Your task to perform on an android device: Search for macbook pro 15 inch on walmart, select the first entry, and add it to the cart. Image 0: 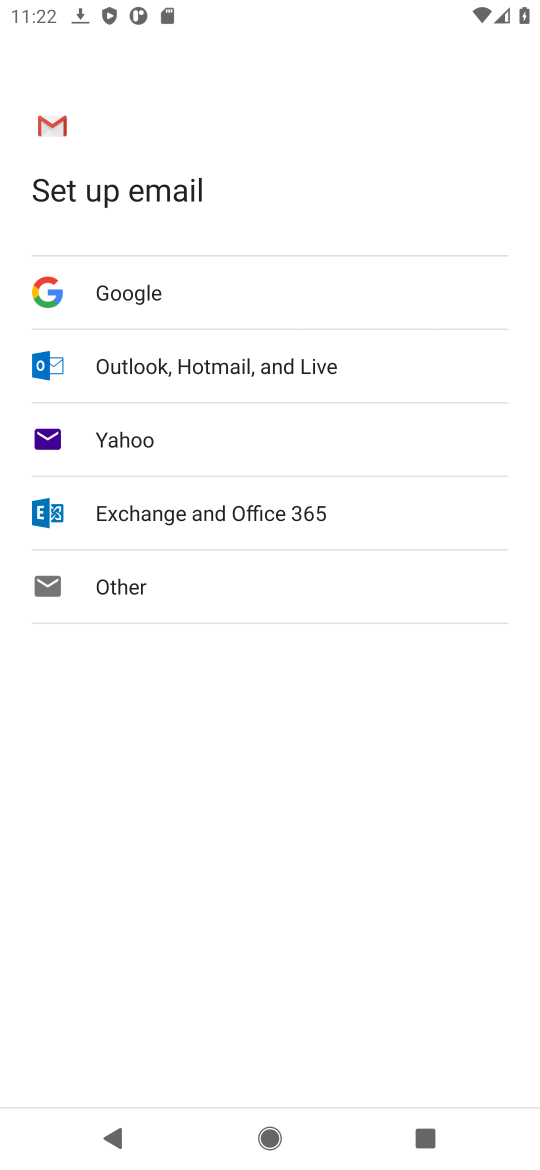
Step 0: press home button
Your task to perform on an android device: Search for macbook pro 15 inch on walmart, select the first entry, and add it to the cart. Image 1: 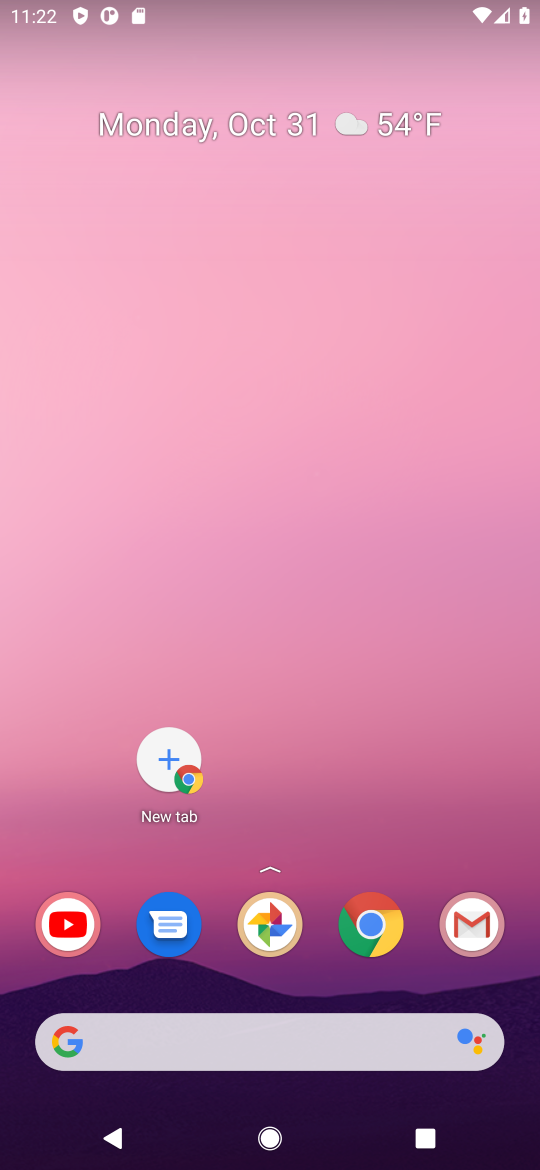
Step 1: click (359, 922)
Your task to perform on an android device: Search for macbook pro 15 inch on walmart, select the first entry, and add it to the cart. Image 2: 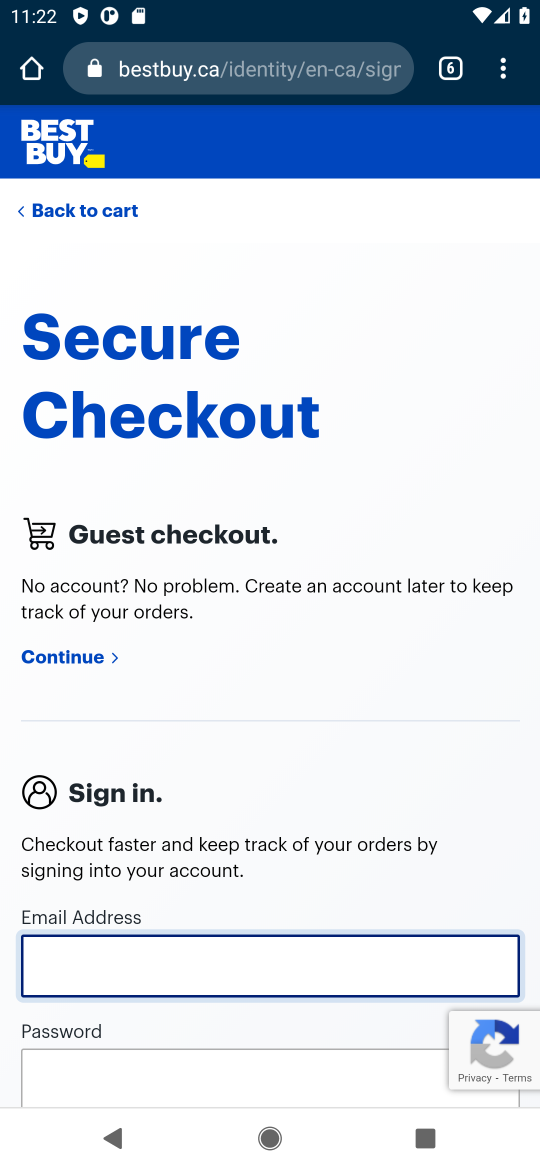
Step 2: click (219, 64)
Your task to perform on an android device: Search for macbook pro 15 inch on walmart, select the first entry, and add it to the cart. Image 3: 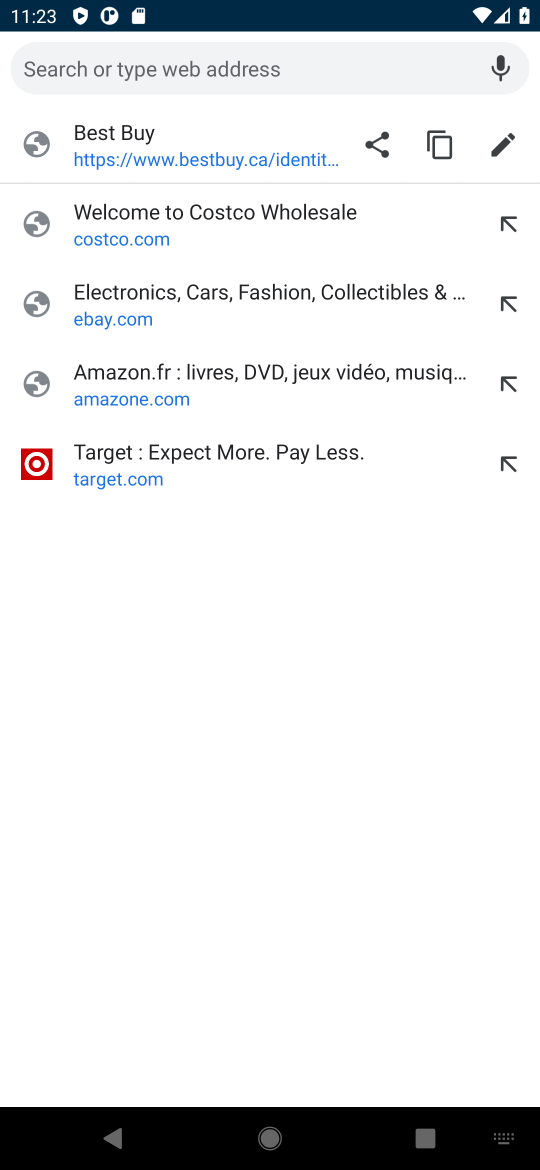
Step 3: type "walmart"
Your task to perform on an android device: Search for macbook pro 15 inch on walmart, select the first entry, and add it to the cart. Image 4: 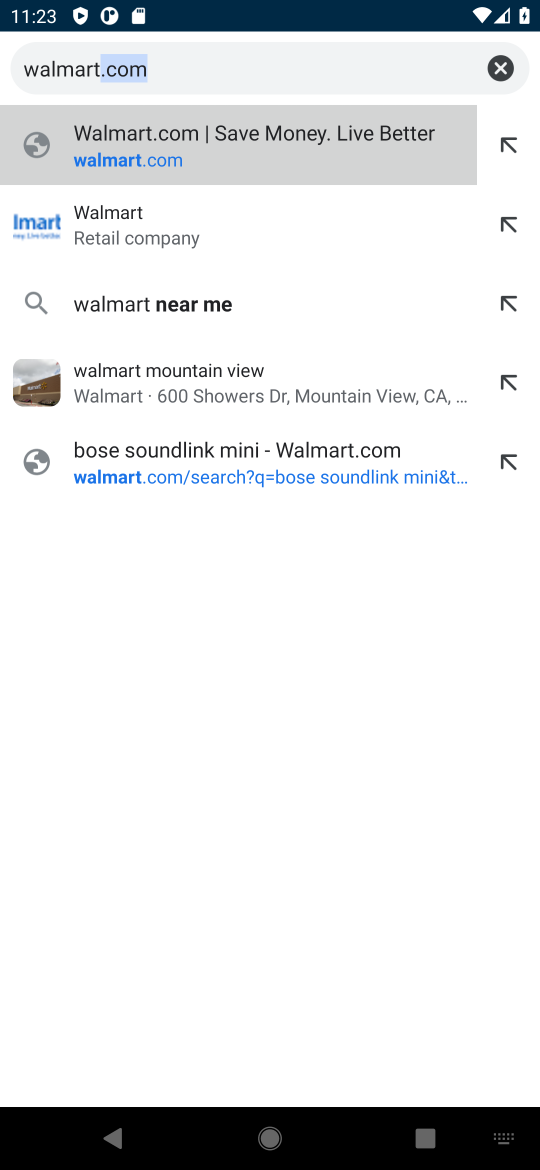
Step 4: type ""
Your task to perform on an android device: Search for macbook pro 15 inch on walmart, select the first entry, and add it to the cart. Image 5: 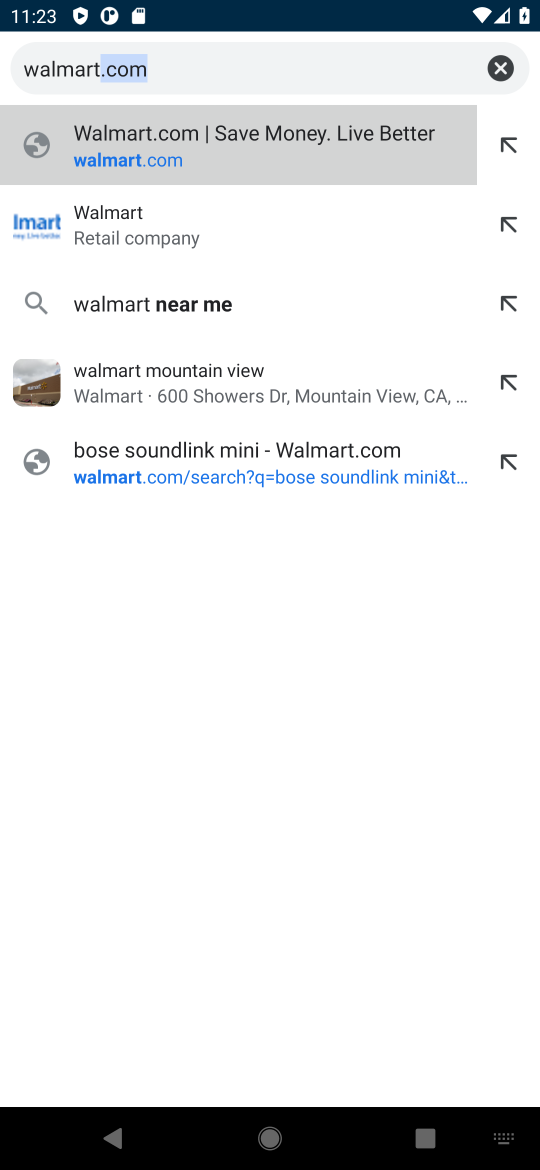
Step 5: click (76, 223)
Your task to perform on an android device: Search for macbook pro 15 inch on walmart, select the first entry, and add it to the cart. Image 6: 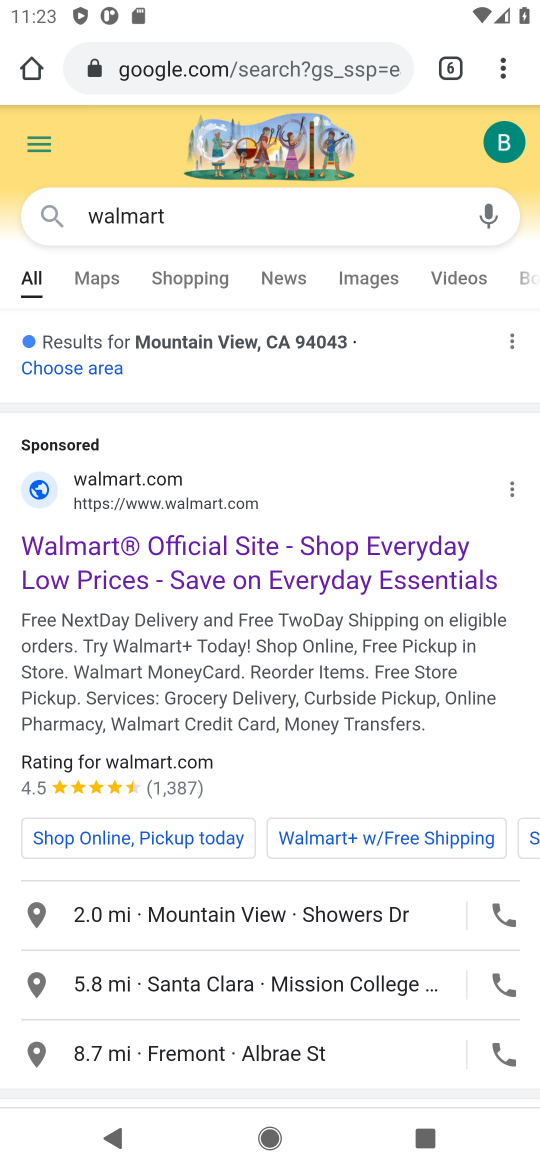
Step 6: click (207, 537)
Your task to perform on an android device: Search for macbook pro 15 inch on walmart, select the first entry, and add it to the cart. Image 7: 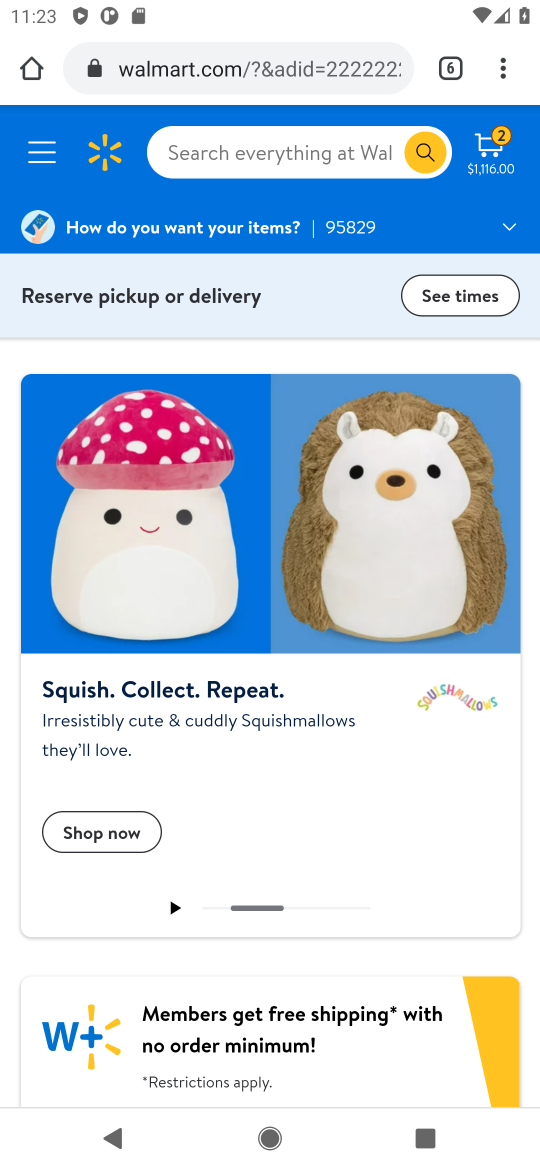
Step 7: click (272, 151)
Your task to perform on an android device: Search for macbook pro 15 inch on walmart, select the first entry, and add it to the cart. Image 8: 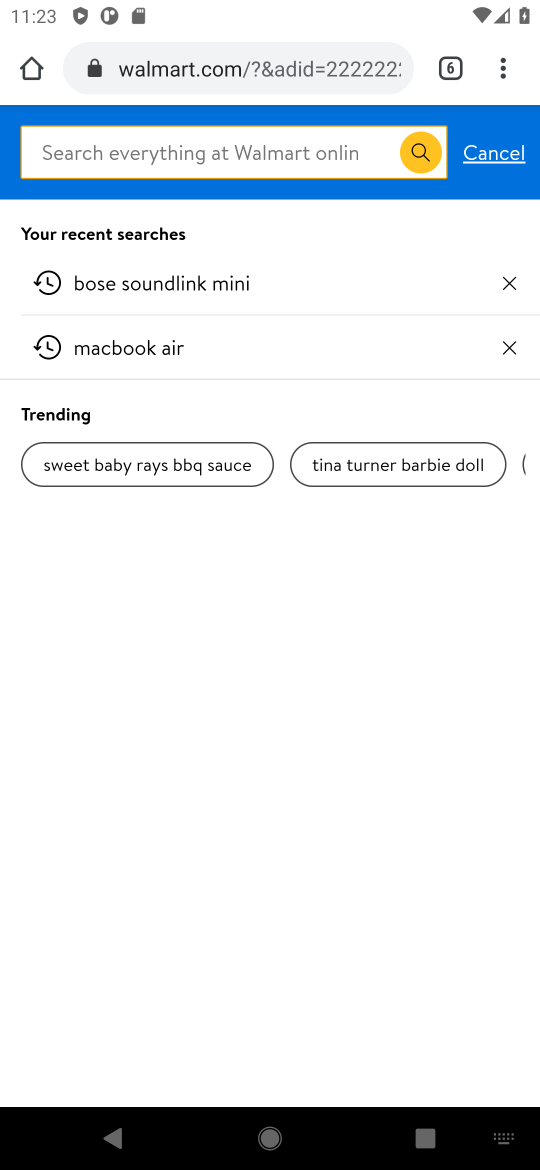
Step 8: type "macbook pro 15"
Your task to perform on an android device: Search for macbook pro 15 inch on walmart, select the first entry, and add it to the cart. Image 9: 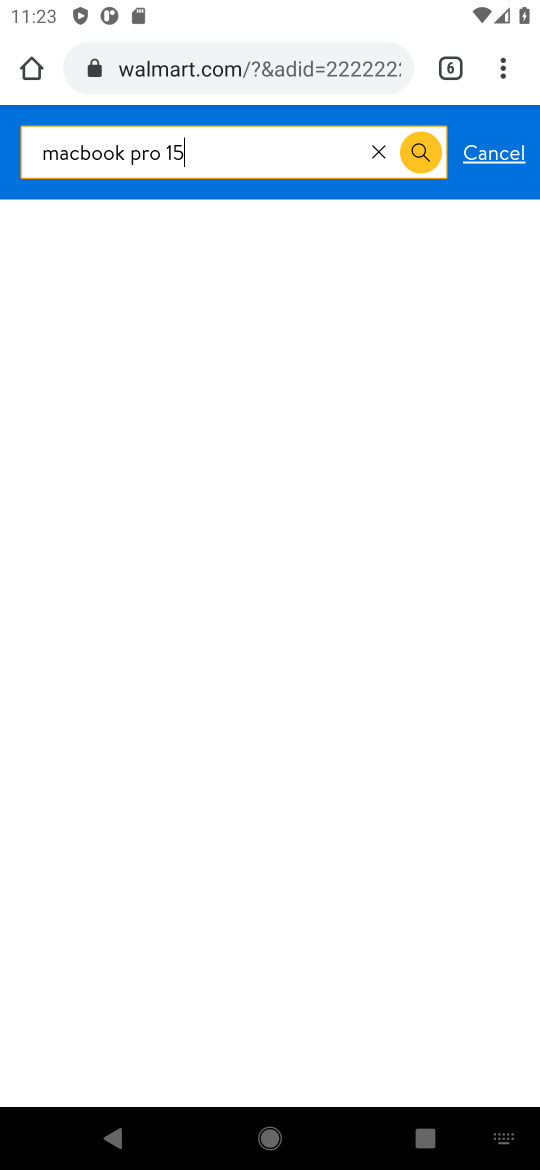
Step 9: type ""
Your task to perform on an android device: Search for macbook pro 15 inch on walmart, select the first entry, and add it to the cart. Image 10: 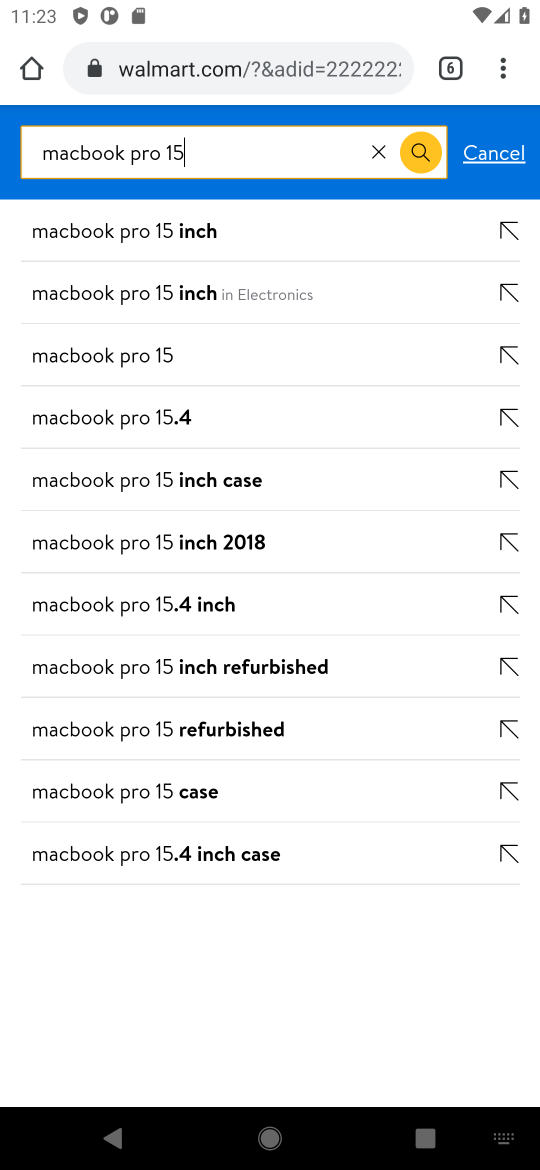
Step 10: click (132, 225)
Your task to perform on an android device: Search for macbook pro 15 inch on walmart, select the first entry, and add it to the cart. Image 11: 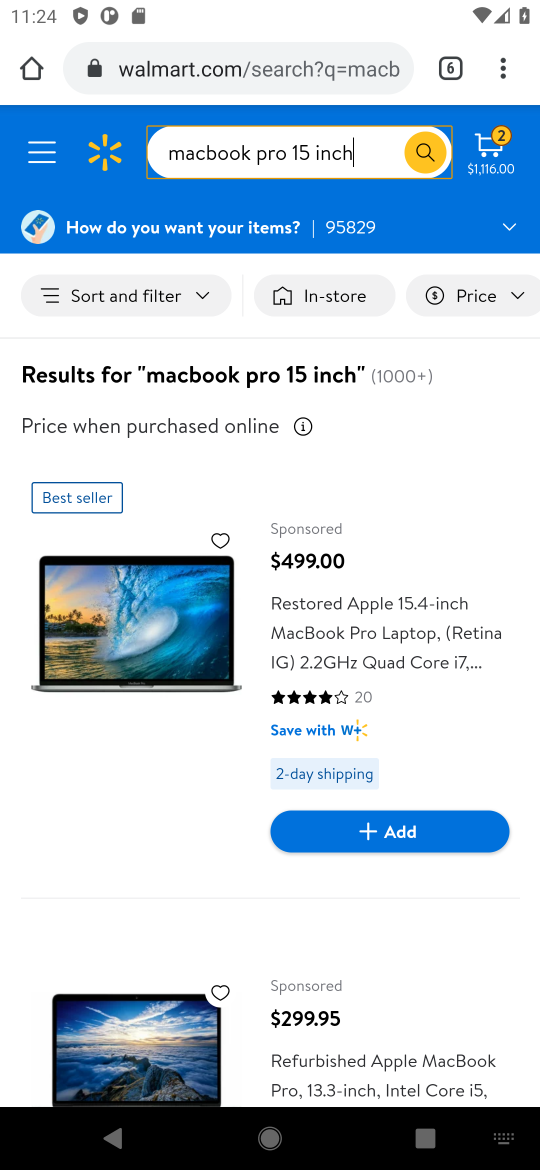
Step 11: click (160, 597)
Your task to perform on an android device: Search for macbook pro 15 inch on walmart, select the first entry, and add it to the cart. Image 12: 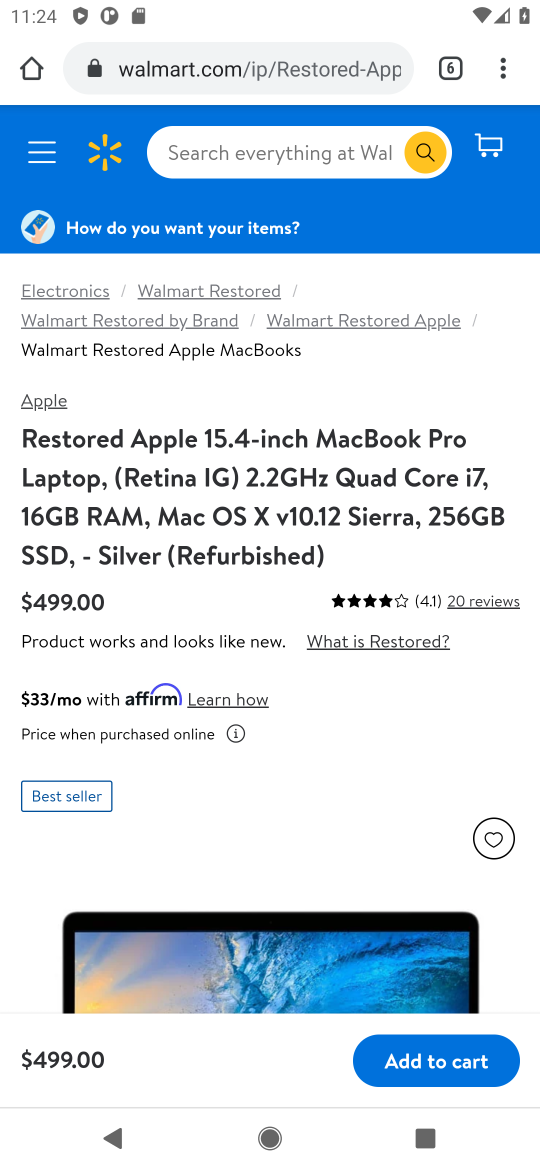
Step 12: drag from (232, 827) to (232, 563)
Your task to perform on an android device: Search for macbook pro 15 inch on walmart, select the first entry, and add it to the cart. Image 13: 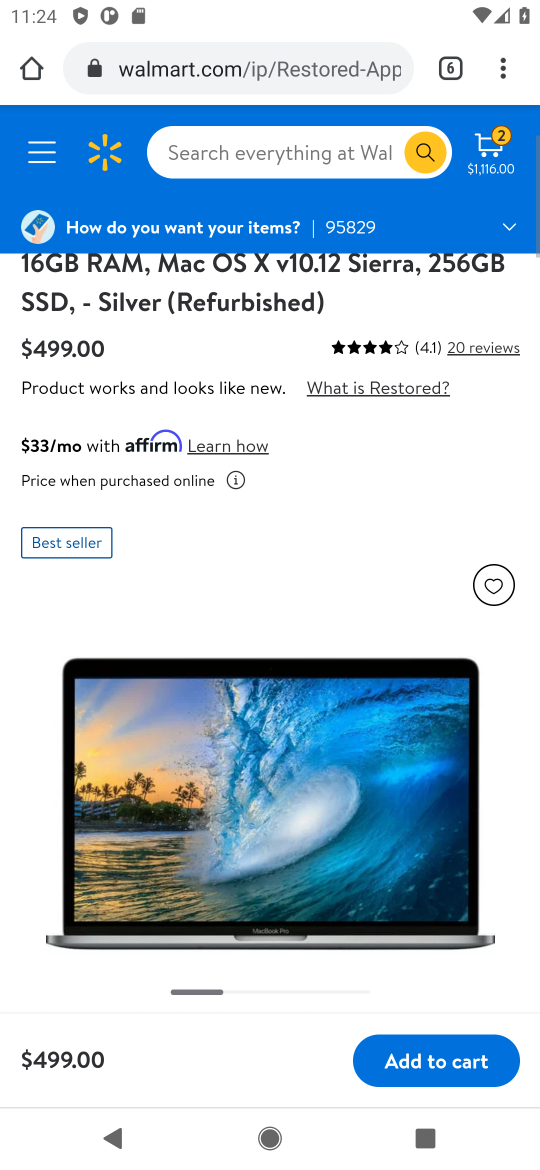
Step 13: drag from (241, 760) to (225, 543)
Your task to perform on an android device: Search for macbook pro 15 inch on walmart, select the first entry, and add it to the cart. Image 14: 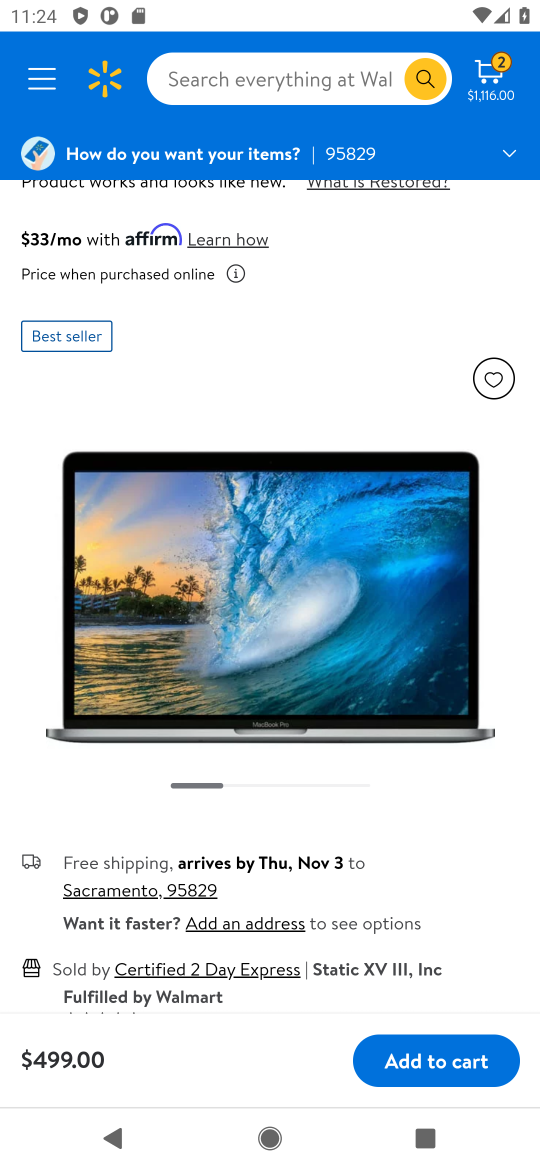
Step 14: drag from (264, 819) to (282, 651)
Your task to perform on an android device: Search for macbook pro 15 inch on walmart, select the first entry, and add it to the cart. Image 15: 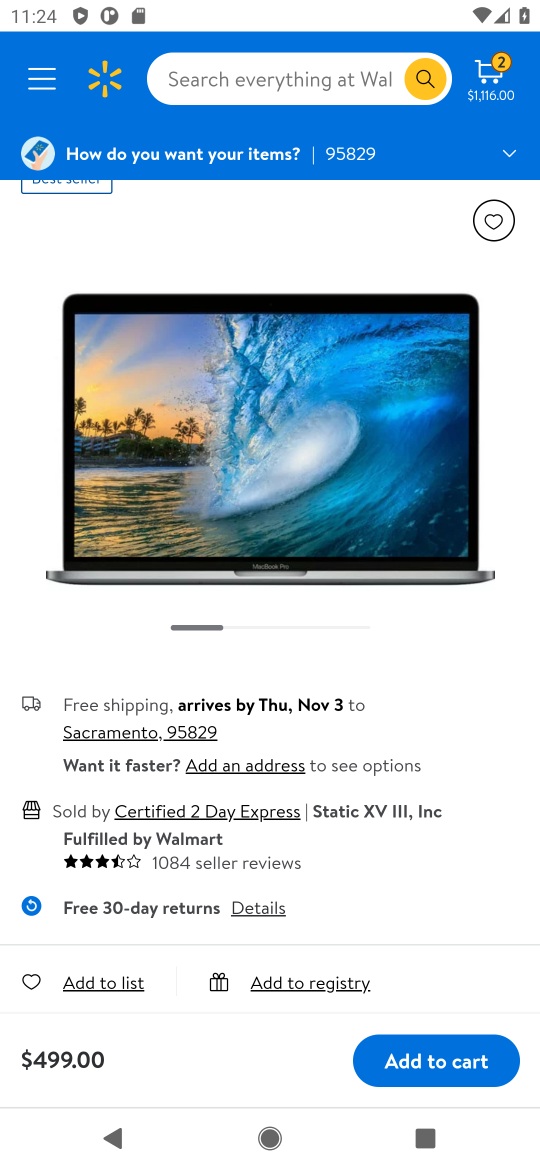
Step 15: drag from (259, 819) to (265, 640)
Your task to perform on an android device: Search for macbook pro 15 inch on walmart, select the first entry, and add it to the cart. Image 16: 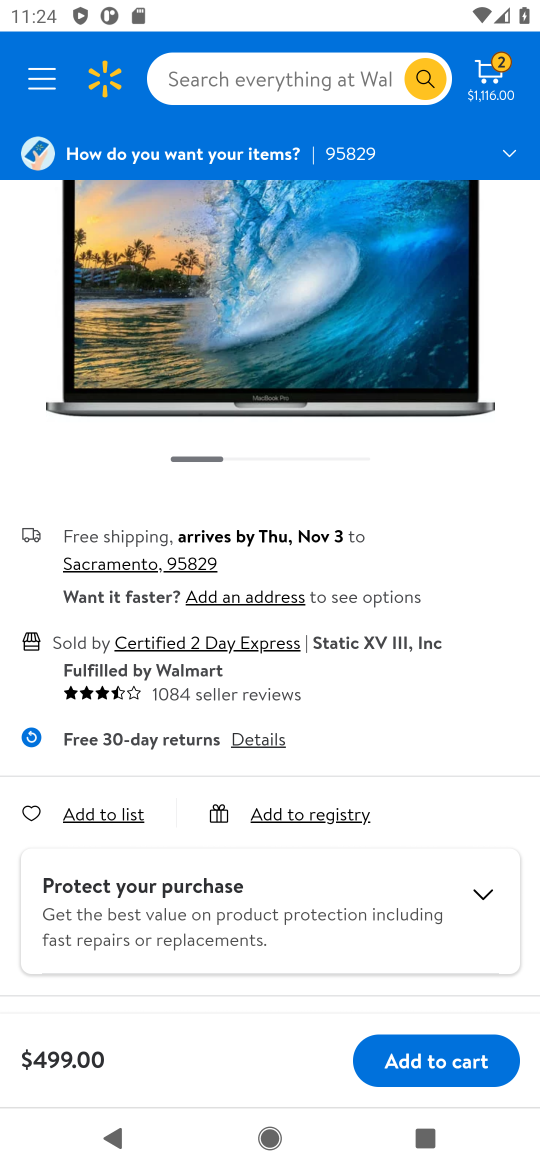
Step 16: click (410, 1077)
Your task to perform on an android device: Search for macbook pro 15 inch on walmart, select the first entry, and add it to the cart. Image 17: 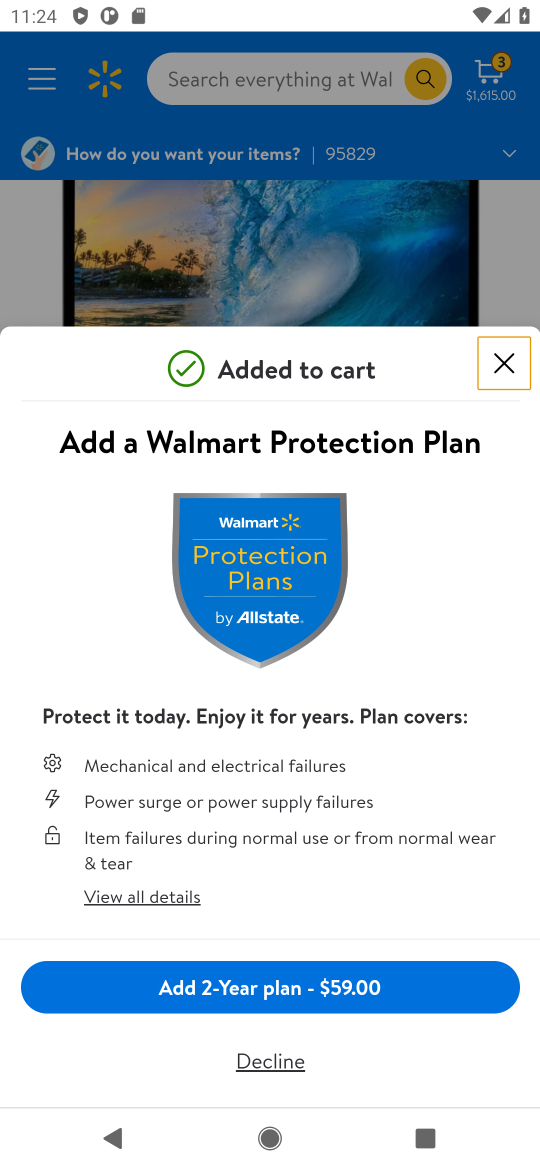
Step 17: click (282, 1058)
Your task to perform on an android device: Search for macbook pro 15 inch on walmart, select the first entry, and add it to the cart. Image 18: 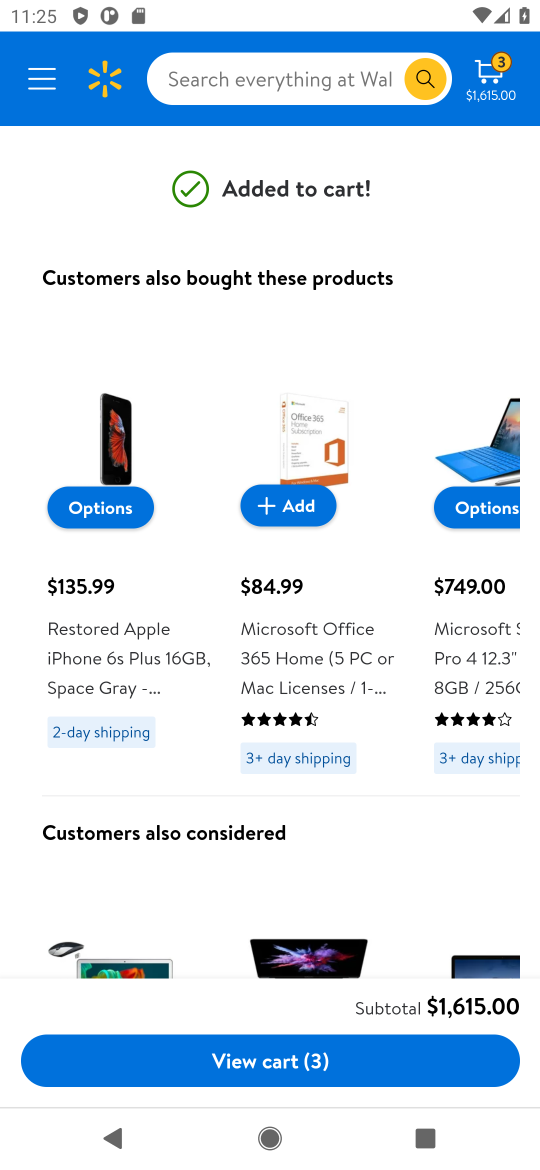
Step 18: click (247, 1065)
Your task to perform on an android device: Search for macbook pro 15 inch on walmart, select the first entry, and add it to the cart. Image 19: 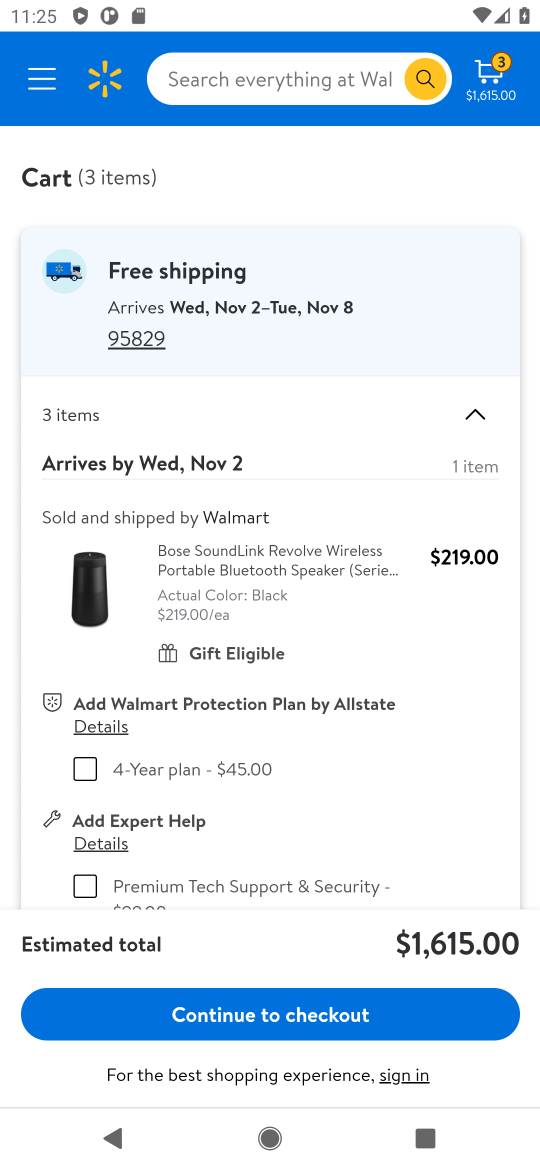
Step 19: drag from (370, 753) to (361, 435)
Your task to perform on an android device: Search for macbook pro 15 inch on walmart, select the first entry, and add it to the cart. Image 20: 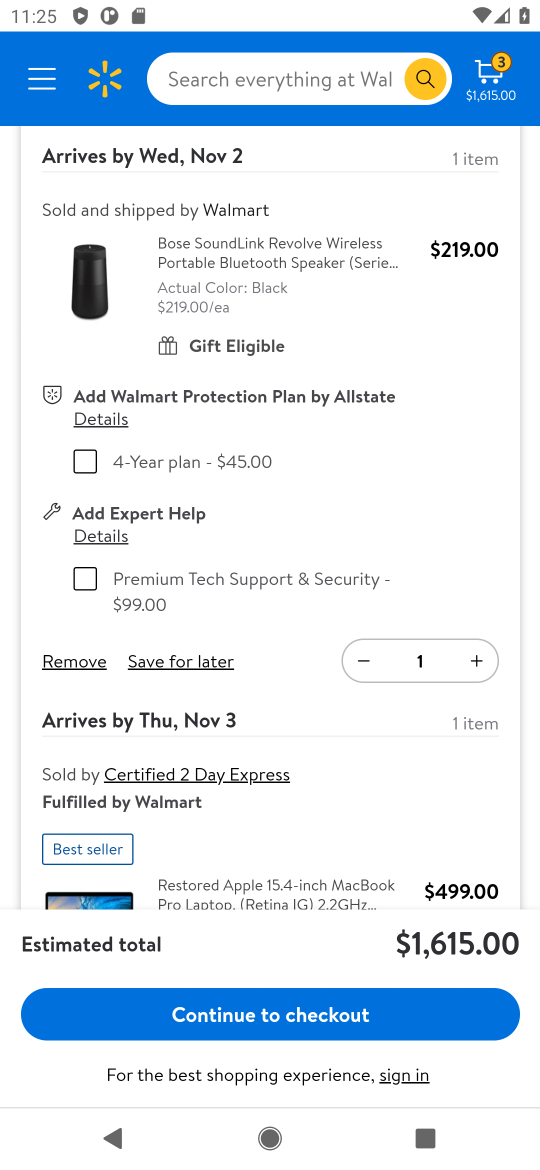
Step 20: drag from (242, 823) to (265, 501)
Your task to perform on an android device: Search for macbook pro 15 inch on walmart, select the first entry, and add it to the cart. Image 21: 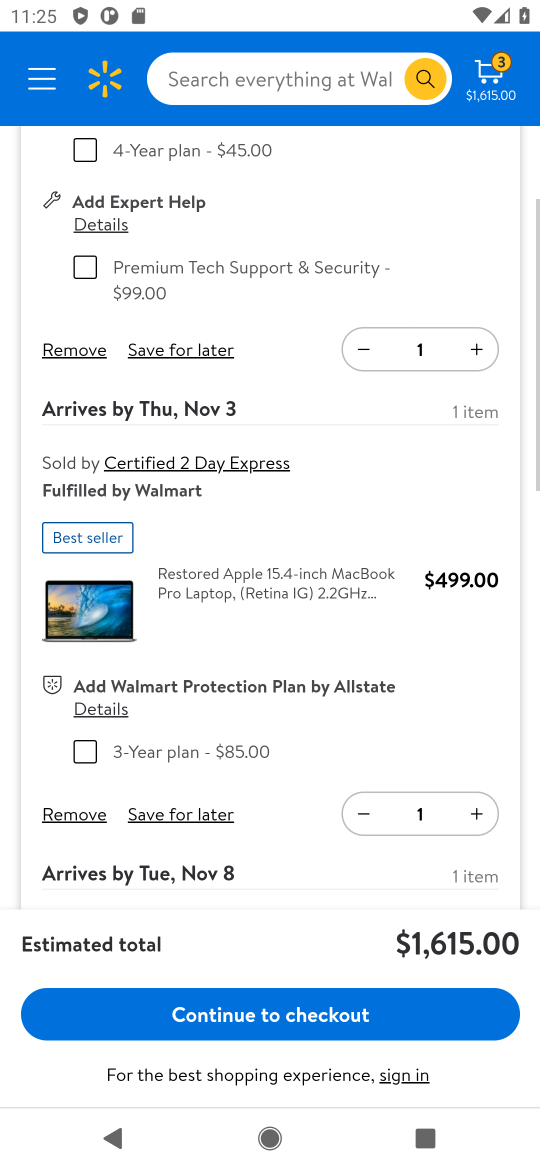
Step 21: drag from (228, 815) to (263, 546)
Your task to perform on an android device: Search for macbook pro 15 inch on walmart, select the first entry, and add it to the cart. Image 22: 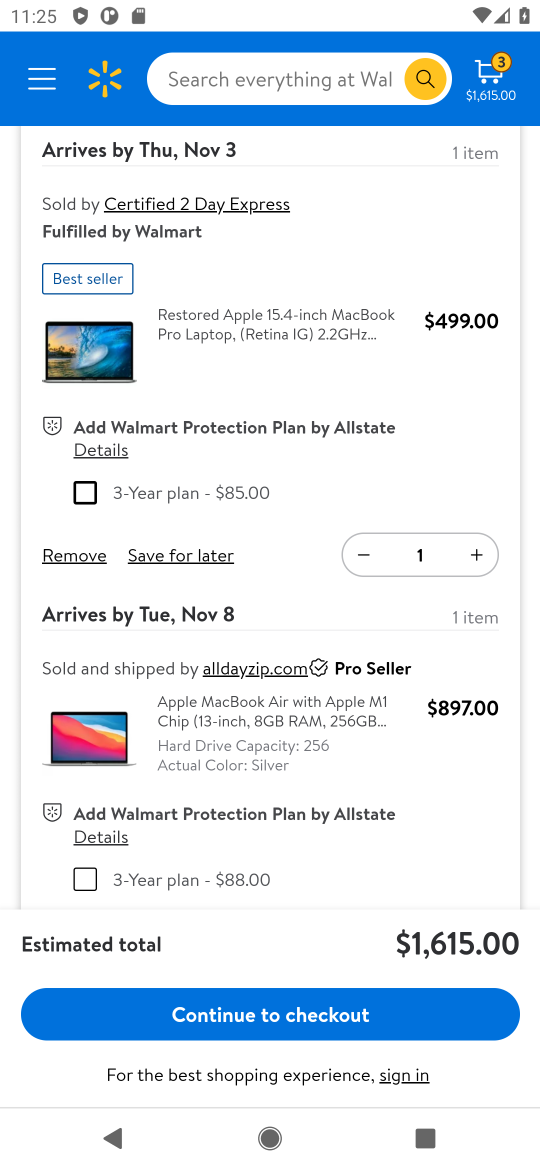
Step 22: click (311, 1017)
Your task to perform on an android device: Search for macbook pro 15 inch on walmart, select the first entry, and add it to the cart. Image 23: 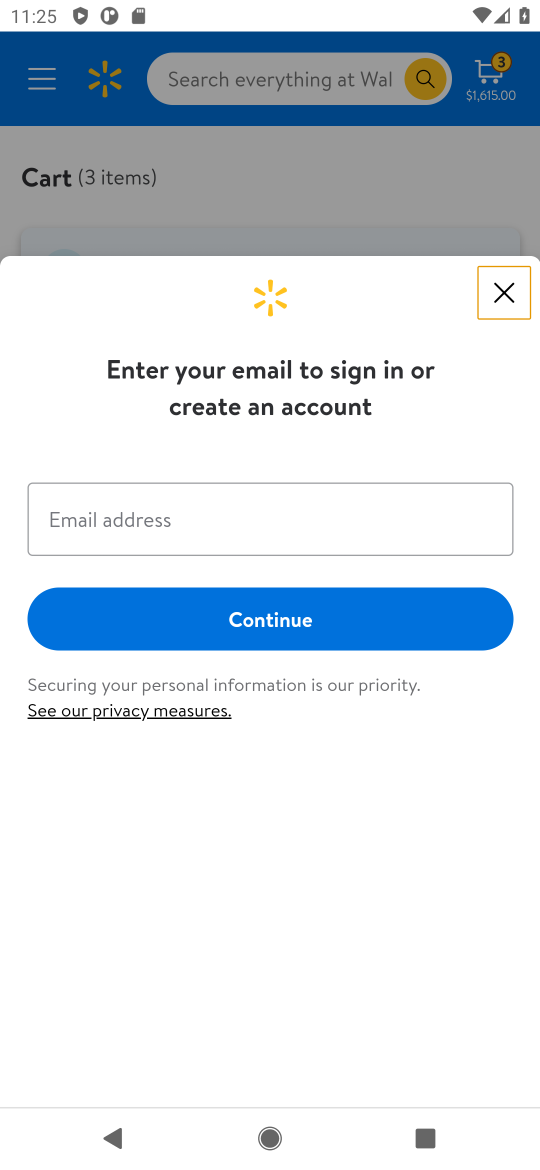
Step 23: task complete